Your task to perform on an android device: set the stopwatch Image 0: 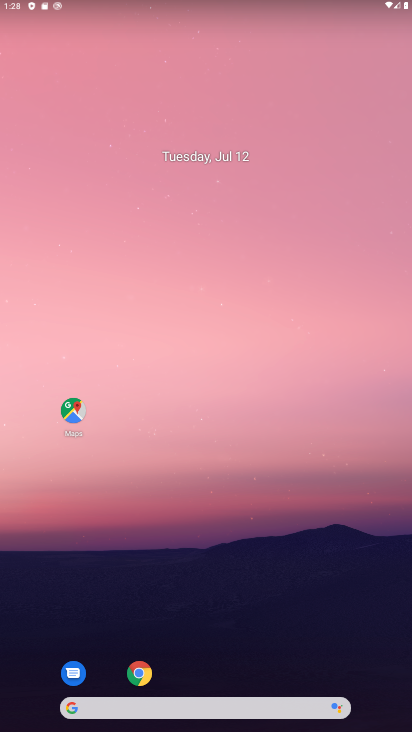
Step 0: drag from (316, 622) to (369, 154)
Your task to perform on an android device: set the stopwatch Image 1: 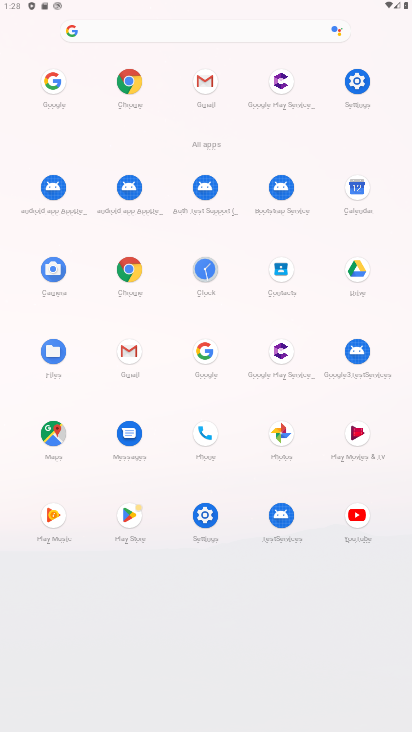
Step 1: click (197, 270)
Your task to perform on an android device: set the stopwatch Image 2: 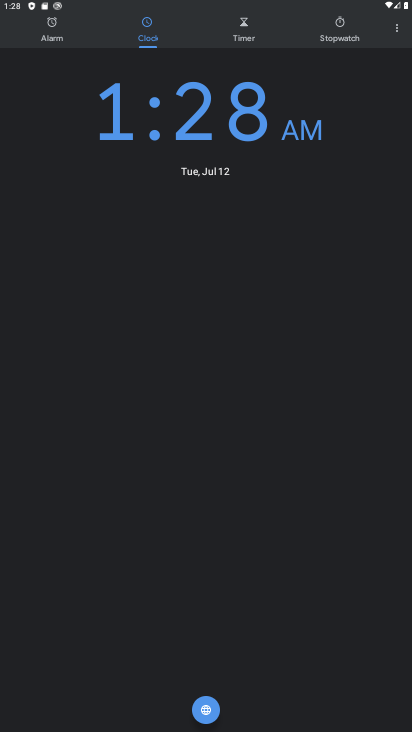
Step 2: click (344, 34)
Your task to perform on an android device: set the stopwatch Image 3: 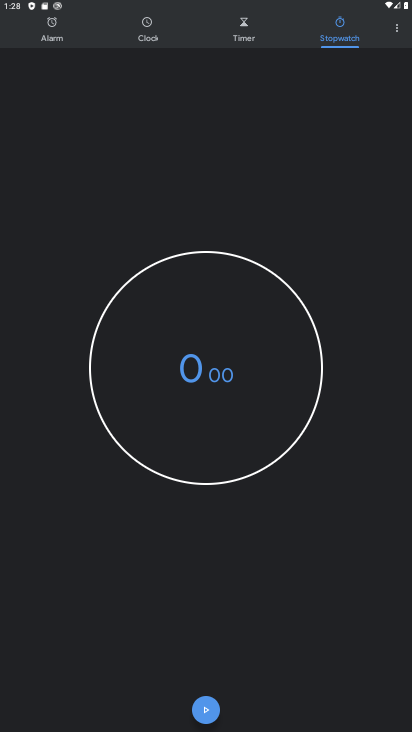
Step 3: click (210, 709)
Your task to perform on an android device: set the stopwatch Image 4: 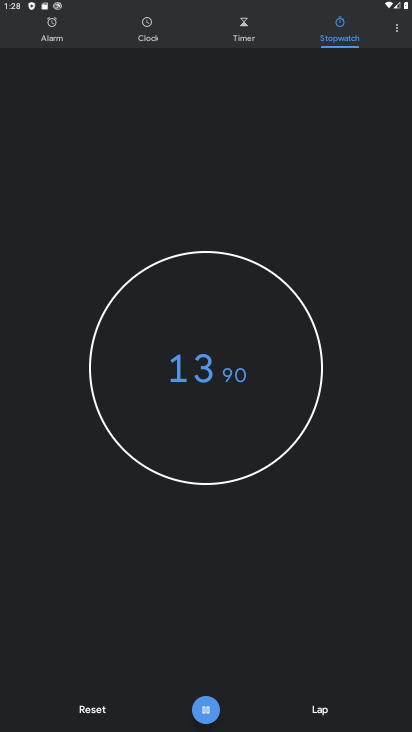
Step 4: task complete